Your task to perform on an android device: Search for Italian restaurants on Maps Image 0: 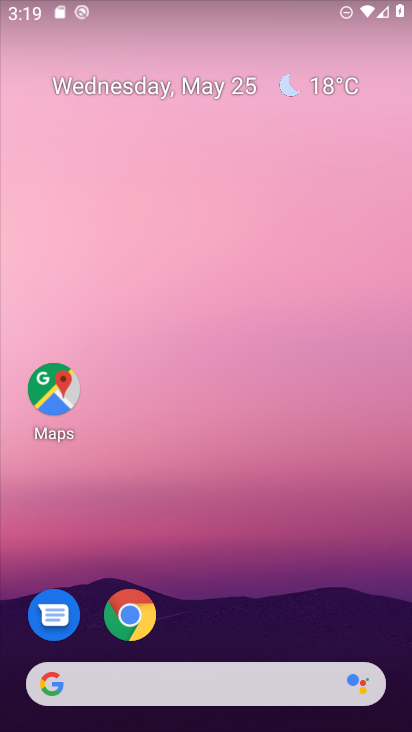
Step 0: drag from (240, 603) to (265, 227)
Your task to perform on an android device: Search for Italian restaurants on Maps Image 1: 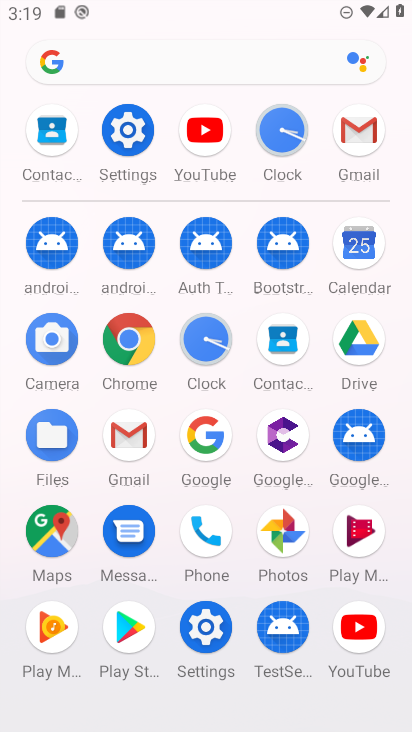
Step 1: click (57, 535)
Your task to perform on an android device: Search for Italian restaurants on Maps Image 2: 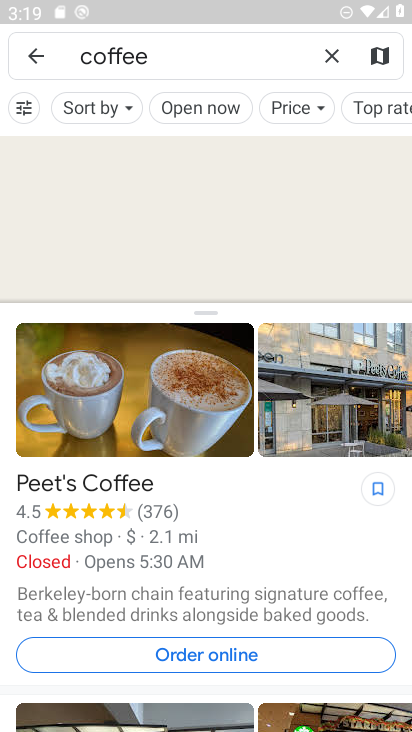
Step 2: click (335, 56)
Your task to perform on an android device: Search for Italian restaurants on Maps Image 3: 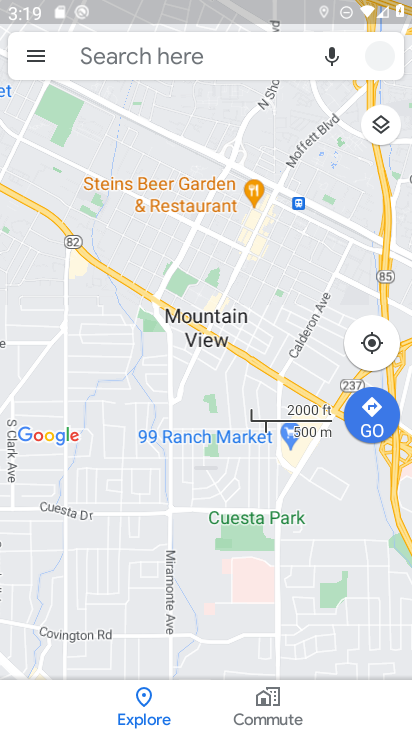
Step 3: click (206, 49)
Your task to perform on an android device: Search for Italian restaurants on Maps Image 4: 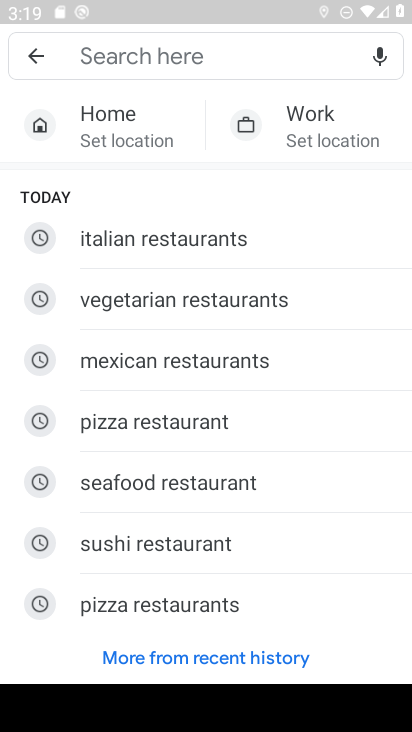
Step 4: click (178, 229)
Your task to perform on an android device: Search for Italian restaurants on Maps Image 5: 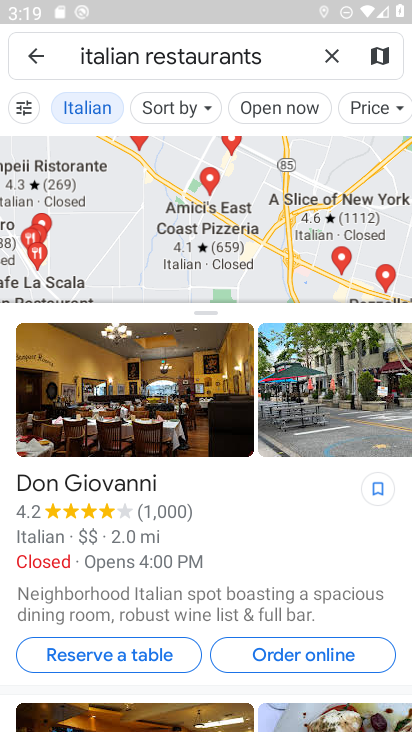
Step 5: task complete